Your task to perform on an android device: turn on the 12-hour format for clock Image 0: 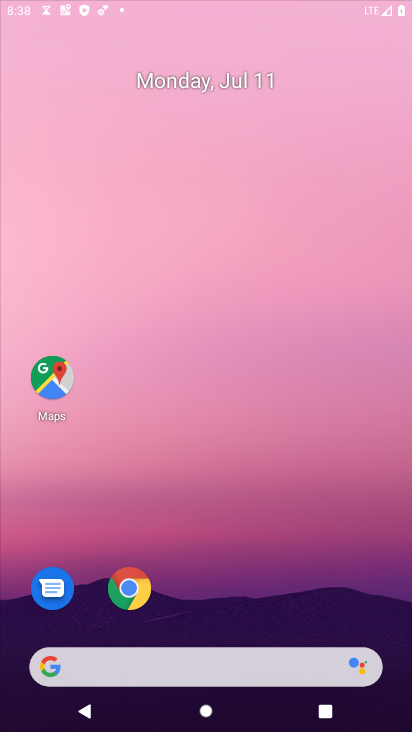
Step 0: press home button
Your task to perform on an android device: turn on the 12-hour format for clock Image 1: 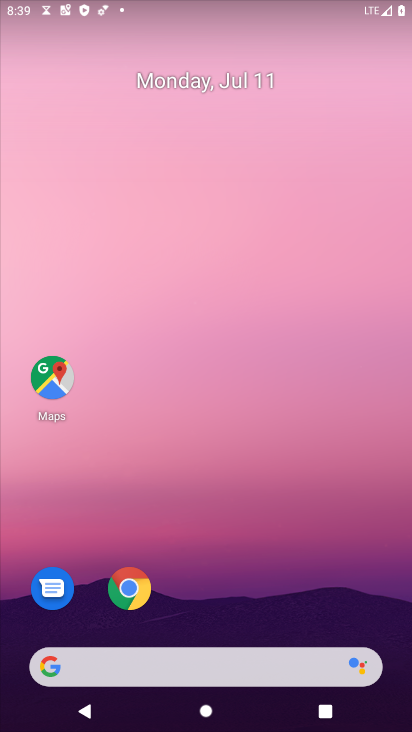
Step 1: drag from (214, 645) to (311, 19)
Your task to perform on an android device: turn on the 12-hour format for clock Image 2: 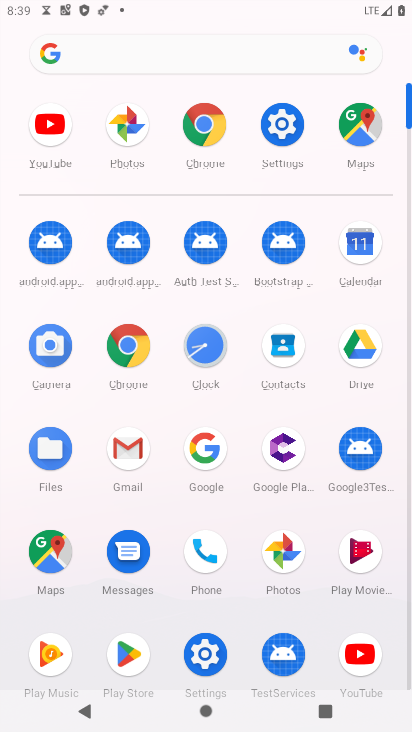
Step 2: click (281, 134)
Your task to perform on an android device: turn on the 12-hour format for clock Image 3: 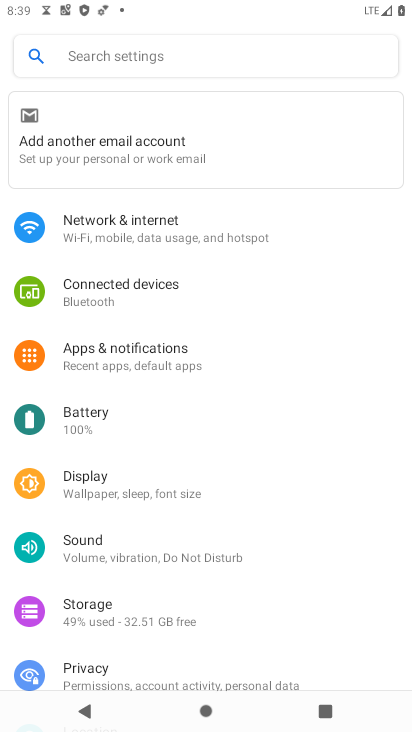
Step 3: drag from (312, 604) to (315, 226)
Your task to perform on an android device: turn on the 12-hour format for clock Image 4: 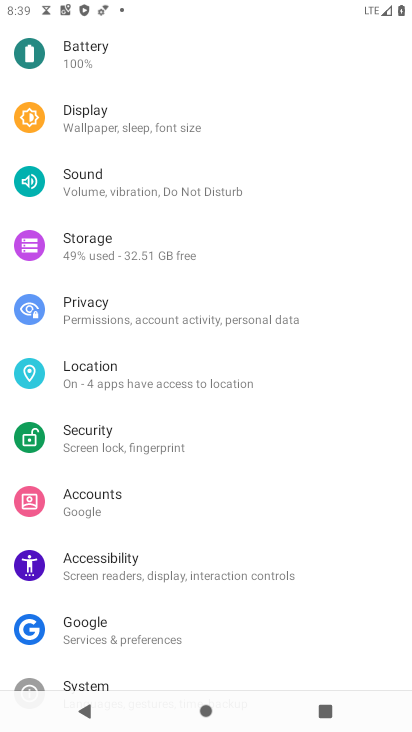
Step 4: drag from (305, 644) to (250, 301)
Your task to perform on an android device: turn on the 12-hour format for clock Image 5: 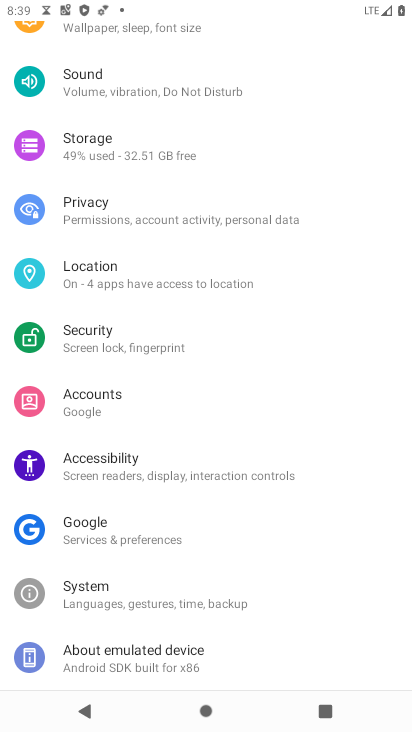
Step 5: click (132, 603)
Your task to perform on an android device: turn on the 12-hour format for clock Image 6: 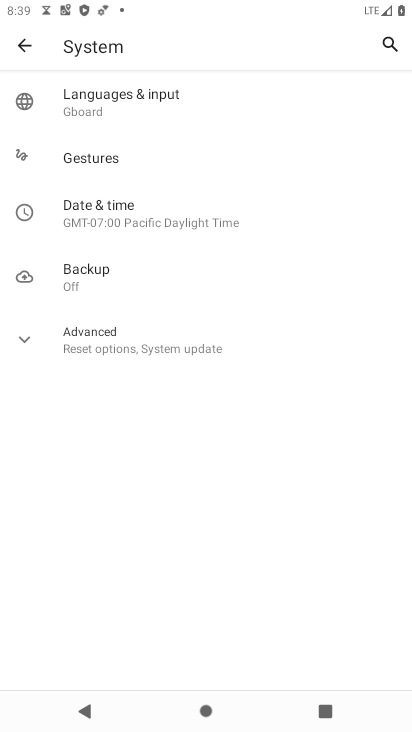
Step 6: click (89, 210)
Your task to perform on an android device: turn on the 12-hour format for clock Image 7: 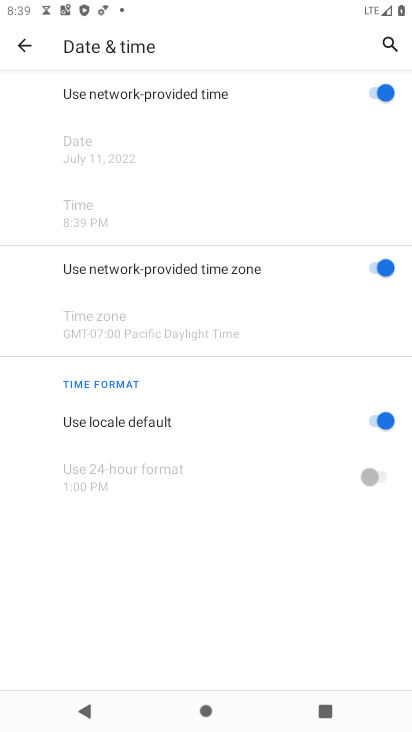
Step 7: click (367, 475)
Your task to perform on an android device: turn on the 12-hour format for clock Image 8: 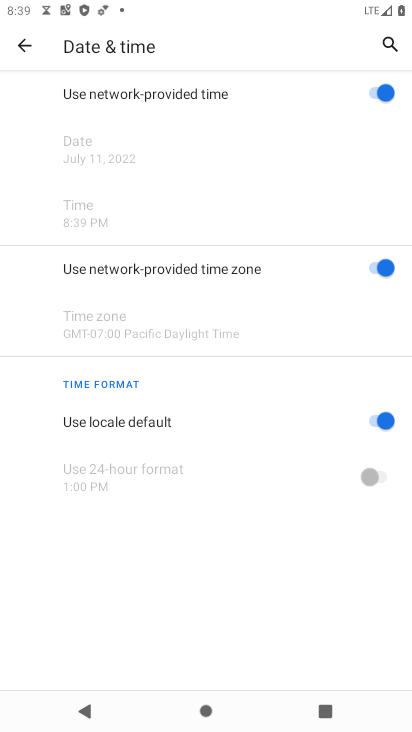
Step 8: click (390, 418)
Your task to perform on an android device: turn on the 12-hour format for clock Image 9: 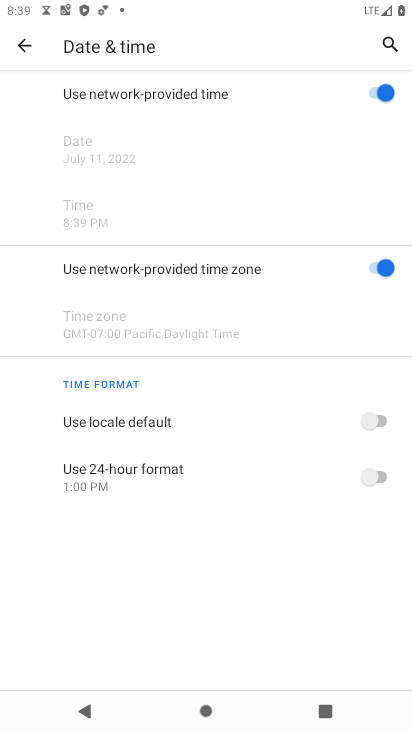
Step 9: click (372, 472)
Your task to perform on an android device: turn on the 12-hour format for clock Image 10: 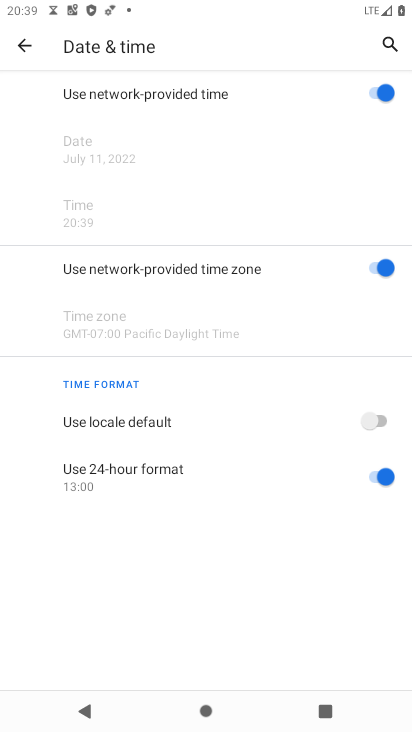
Step 10: task complete